Your task to perform on an android device: clear all cookies in the chrome app Image 0: 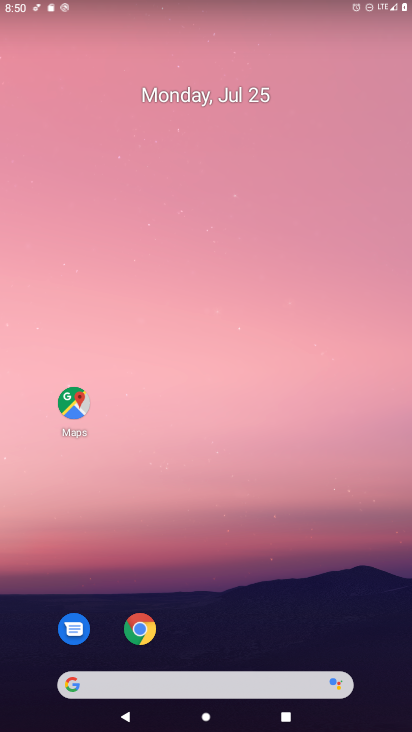
Step 0: click (141, 630)
Your task to perform on an android device: clear all cookies in the chrome app Image 1: 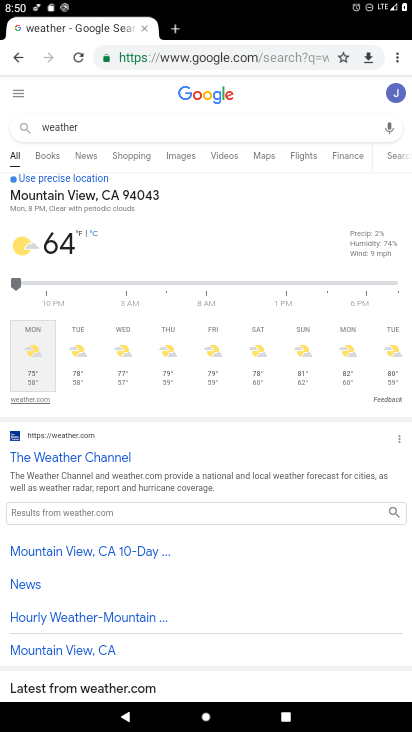
Step 1: click (397, 57)
Your task to perform on an android device: clear all cookies in the chrome app Image 2: 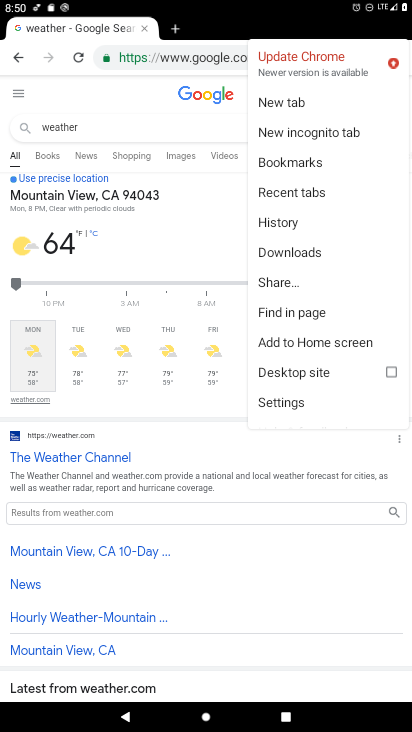
Step 2: click (277, 404)
Your task to perform on an android device: clear all cookies in the chrome app Image 3: 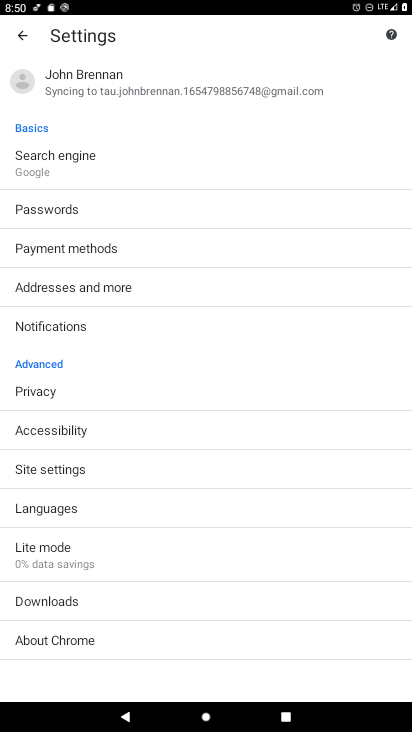
Step 3: click (48, 392)
Your task to perform on an android device: clear all cookies in the chrome app Image 4: 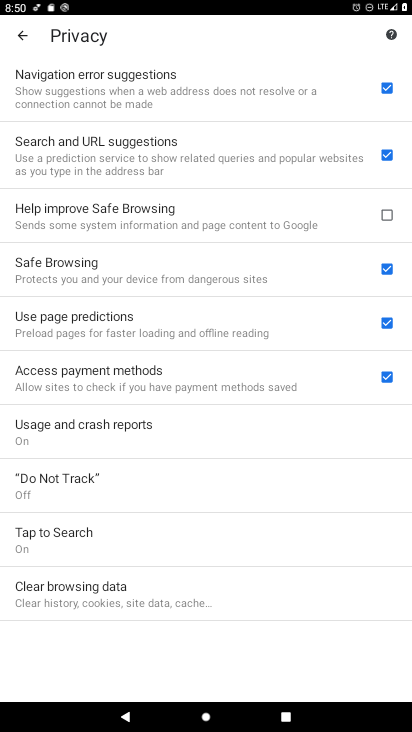
Step 4: click (69, 586)
Your task to perform on an android device: clear all cookies in the chrome app Image 5: 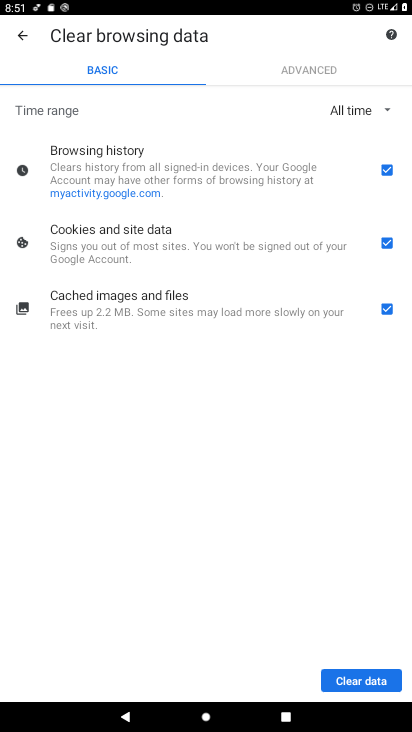
Step 5: click (388, 308)
Your task to perform on an android device: clear all cookies in the chrome app Image 6: 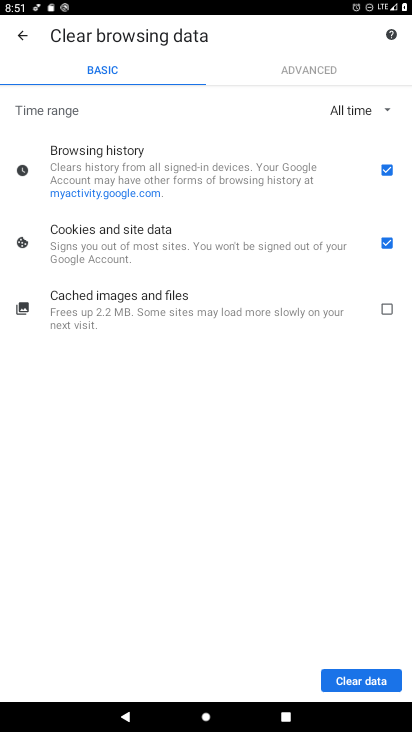
Step 6: click (391, 172)
Your task to perform on an android device: clear all cookies in the chrome app Image 7: 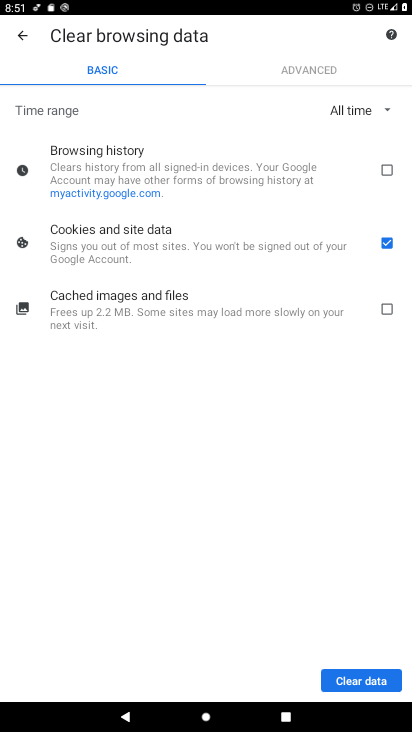
Step 7: click (354, 689)
Your task to perform on an android device: clear all cookies in the chrome app Image 8: 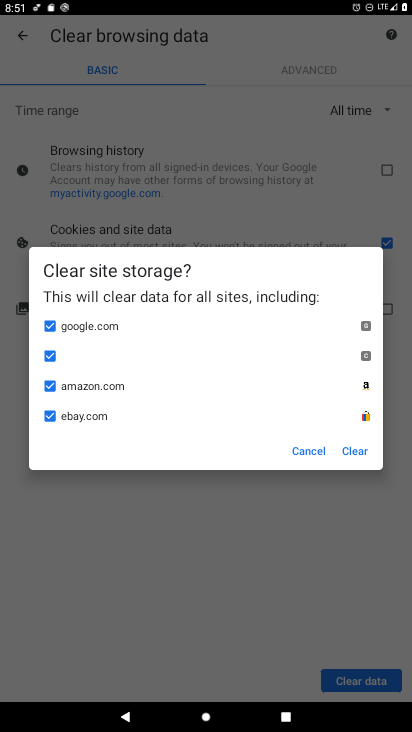
Step 8: click (374, 449)
Your task to perform on an android device: clear all cookies in the chrome app Image 9: 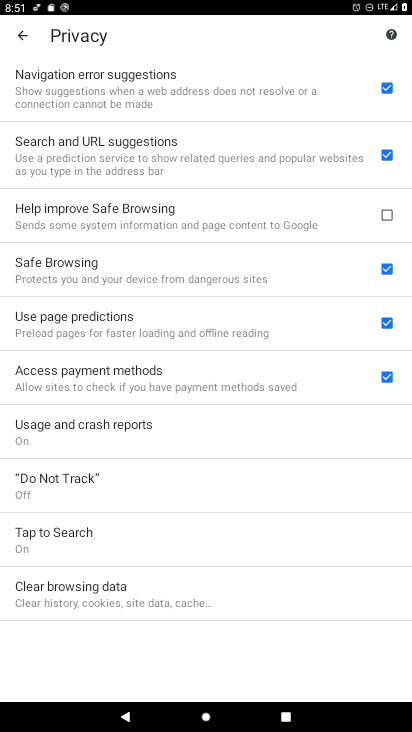
Step 9: task complete